Your task to perform on an android device: Open sound settings Image 0: 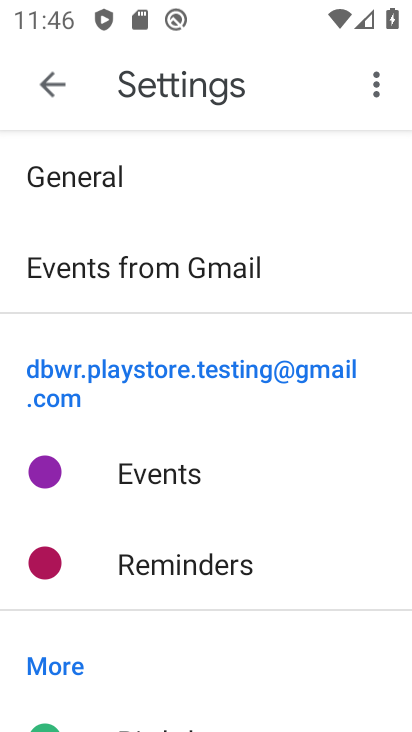
Step 0: press home button
Your task to perform on an android device: Open sound settings Image 1: 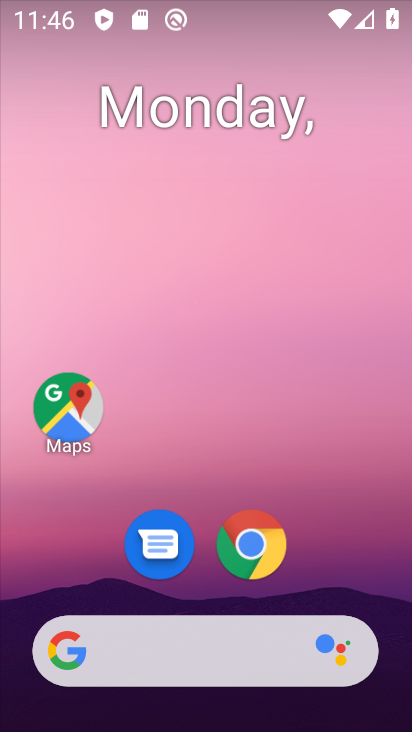
Step 1: drag from (342, 458) to (342, 176)
Your task to perform on an android device: Open sound settings Image 2: 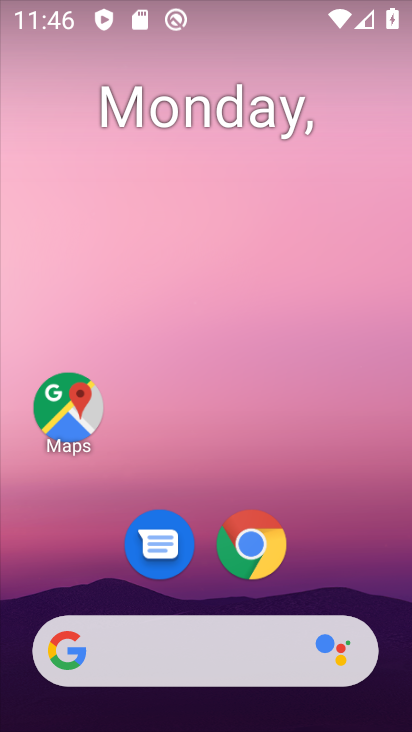
Step 2: drag from (295, 220) to (274, 35)
Your task to perform on an android device: Open sound settings Image 3: 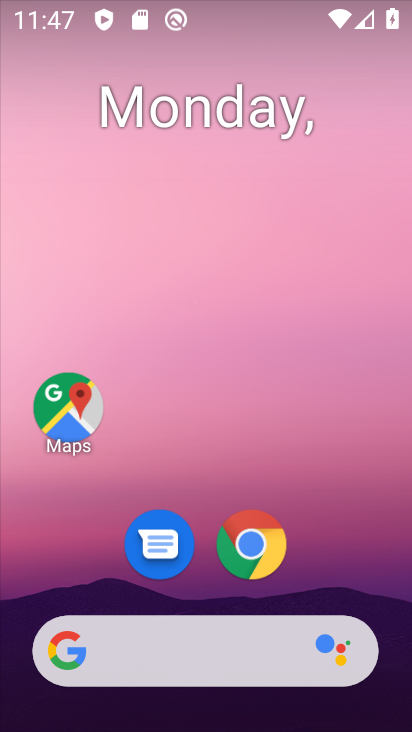
Step 3: drag from (315, 429) to (311, 0)
Your task to perform on an android device: Open sound settings Image 4: 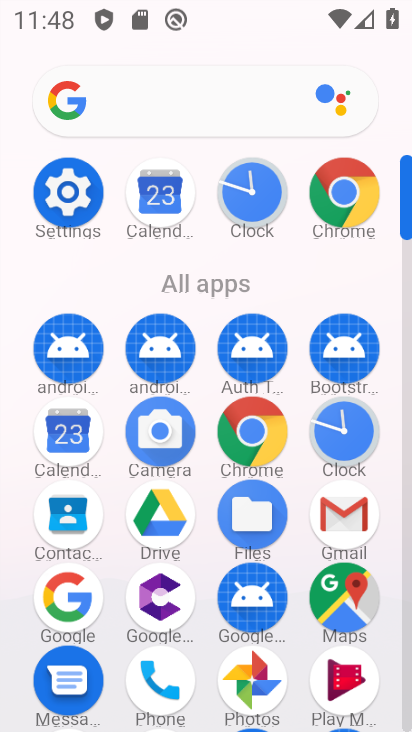
Step 4: click (72, 181)
Your task to perform on an android device: Open sound settings Image 5: 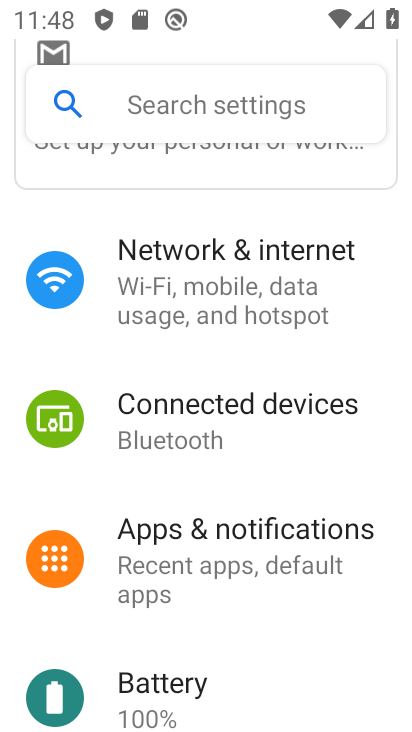
Step 5: drag from (305, 579) to (294, 332)
Your task to perform on an android device: Open sound settings Image 6: 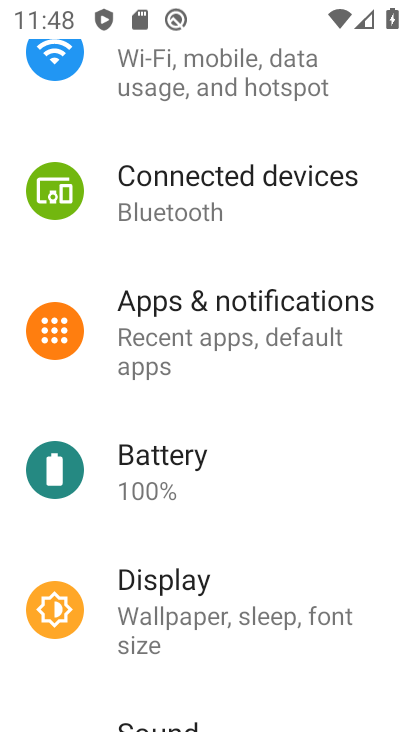
Step 6: drag from (205, 549) to (229, 242)
Your task to perform on an android device: Open sound settings Image 7: 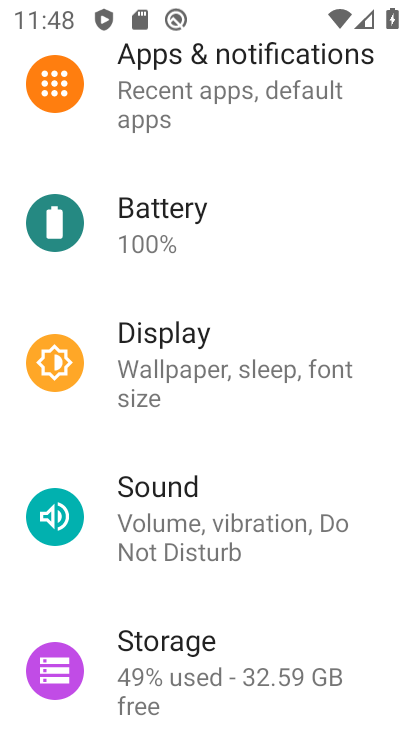
Step 7: click (230, 511)
Your task to perform on an android device: Open sound settings Image 8: 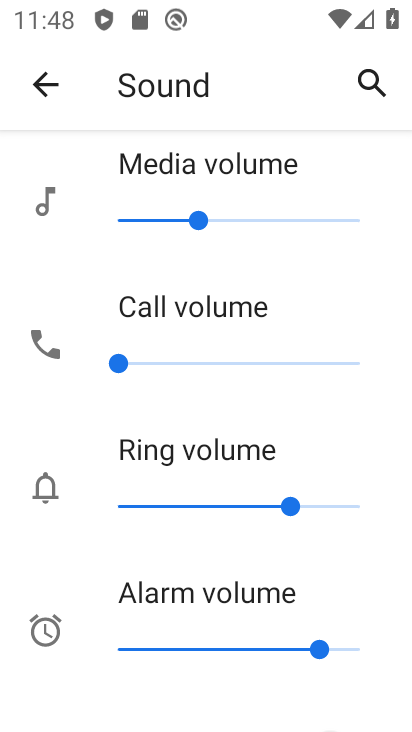
Step 8: task complete